Your task to perform on an android device: Search for sushi restaurants on Maps Image 0: 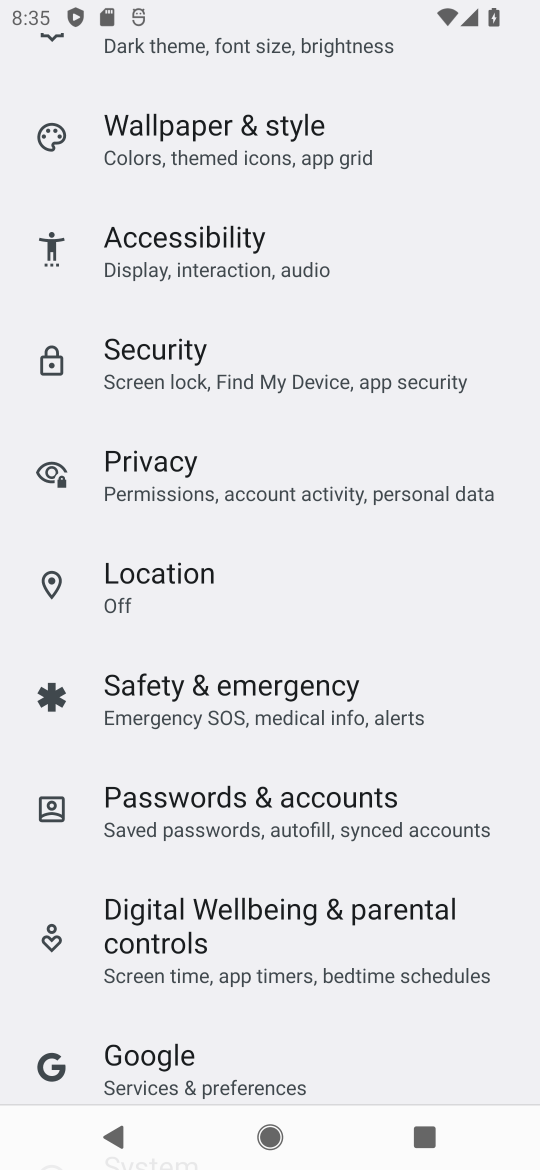
Step 0: press home button
Your task to perform on an android device: Search for sushi restaurants on Maps Image 1: 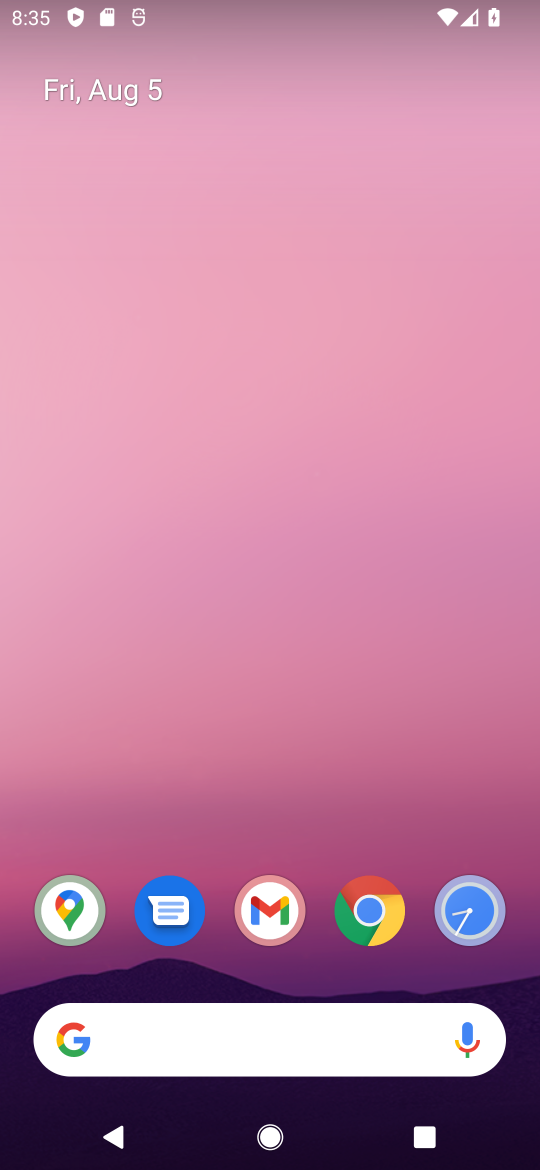
Step 1: click (61, 910)
Your task to perform on an android device: Search for sushi restaurants on Maps Image 2: 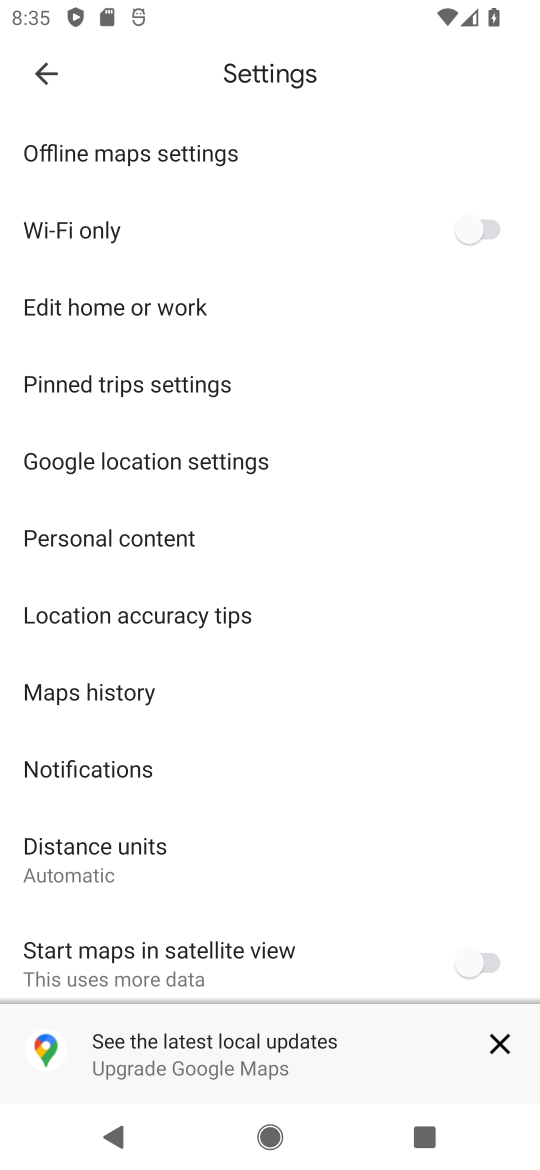
Step 2: click (40, 59)
Your task to perform on an android device: Search for sushi restaurants on Maps Image 3: 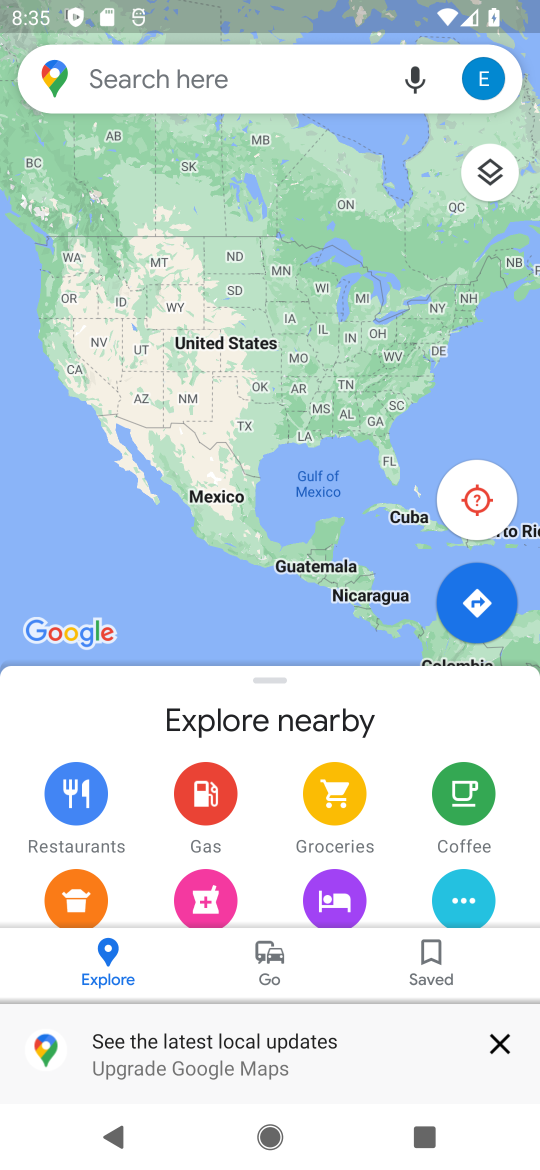
Step 3: click (205, 69)
Your task to perform on an android device: Search for sushi restaurants on Maps Image 4: 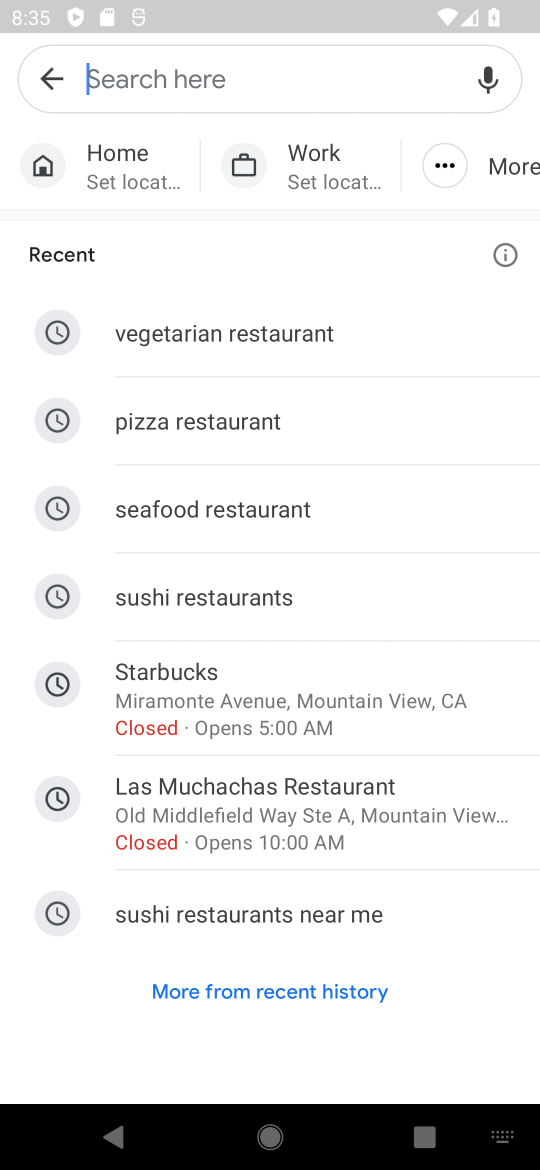
Step 4: click (221, 601)
Your task to perform on an android device: Search for sushi restaurants on Maps Image 5: 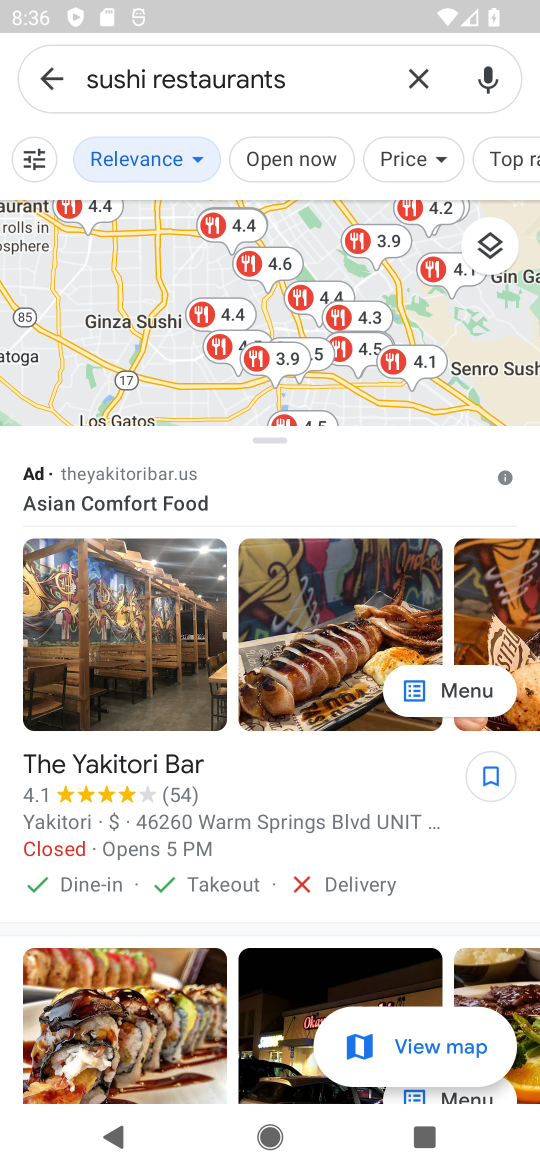
Step 5: task complete